Your task to perform on an android device: Turn on the flashlight Image 0: 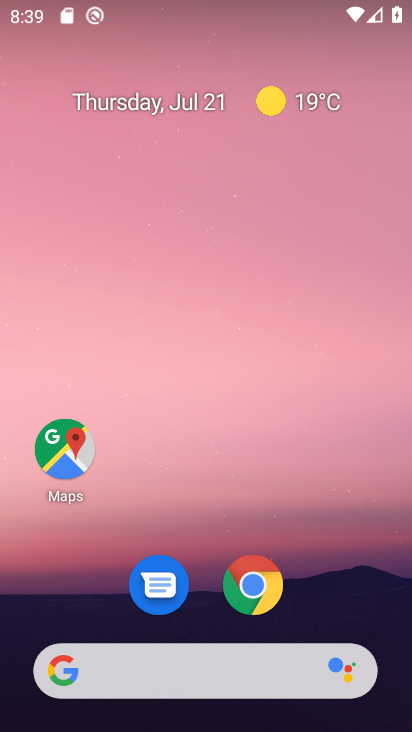
Step 0: drag from (314, 586) to (317, 66)
Your task to perform on an android device: Turn on the flashlight Image 1: 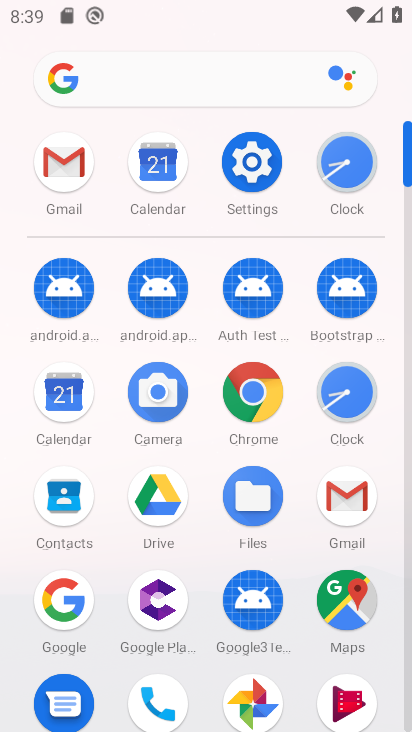
Step 1: click (247, 160)
Your task to perform on an android device: Turn on the flashlight Image 2: 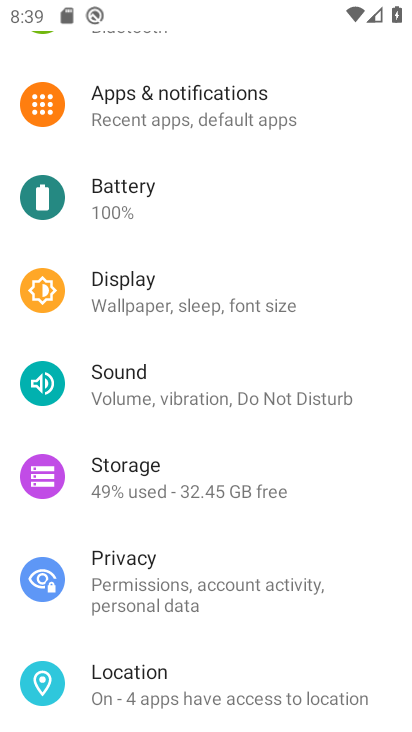
Step 2: drag from (235, 220) to (253, 606)
Your task to perform on an android device: Turn on the flashlight Image 3: 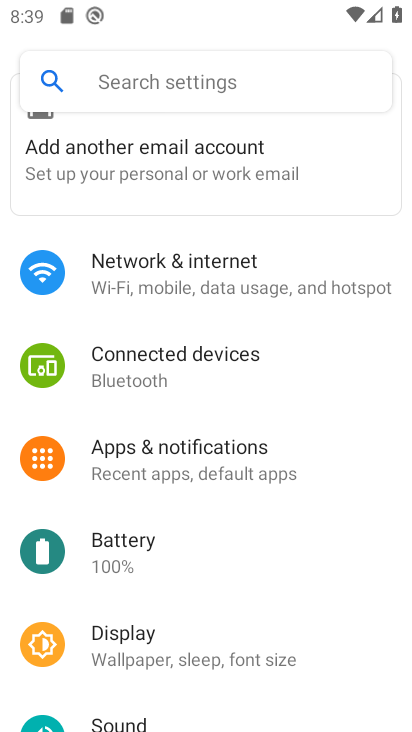
Step 3: drag from (246, 330) to (264, 639)
Your task to perform on an android device: Turn on the flashlight Image 4: 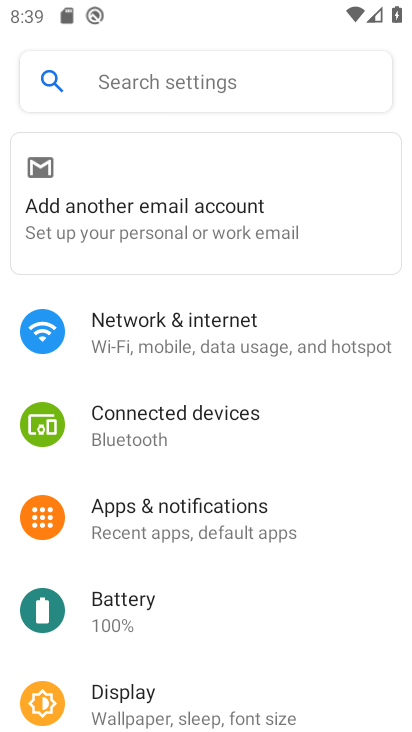
Step 4: click (256, 73)
Your task to perform on an android device: Turn on the flashlight Image 5: 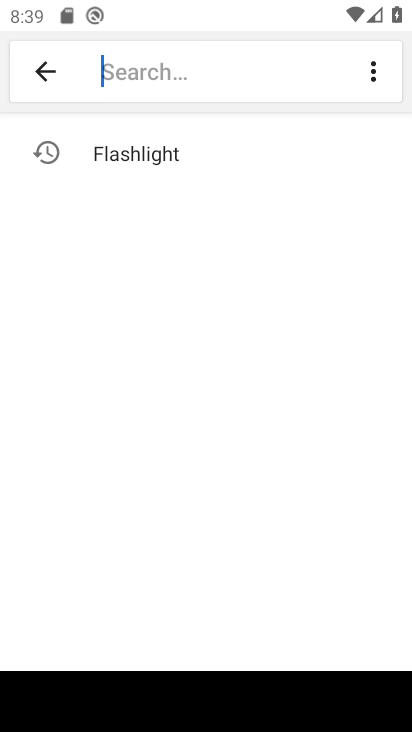
Step 5: click (159, 149)
Your task to perform on an android device: Turn on the flashlight Image 6: 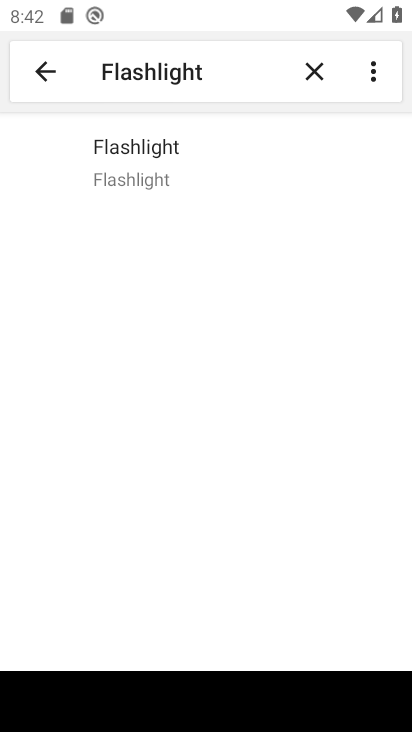
Step 6: task complete